Your task to perform on an android device: Go to internet settings Image 0: 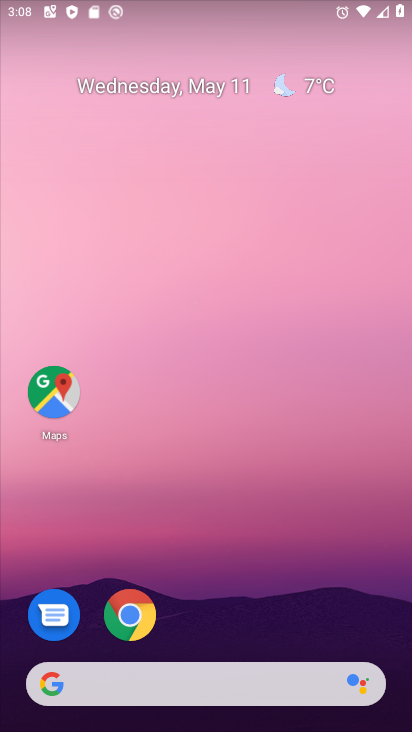
Step 0: drag from (267, 227) to (270, 3)
Your task to perform on an android device: Go to internet settings Image 1: 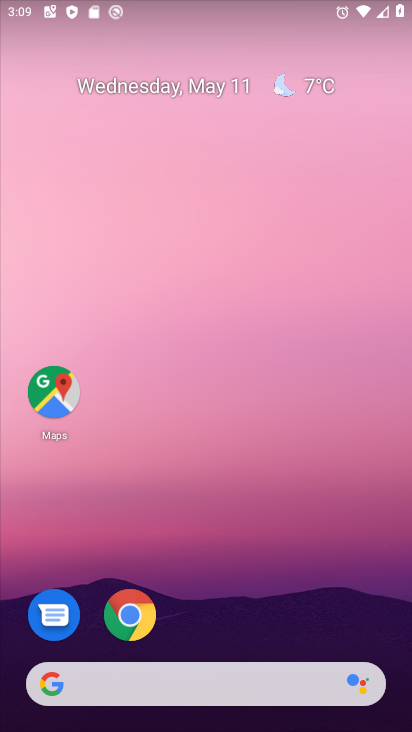
Step 1: drag from (292, 559) to (254, 37)
Your task to perform on an android device: Go to internet settings Image 2: 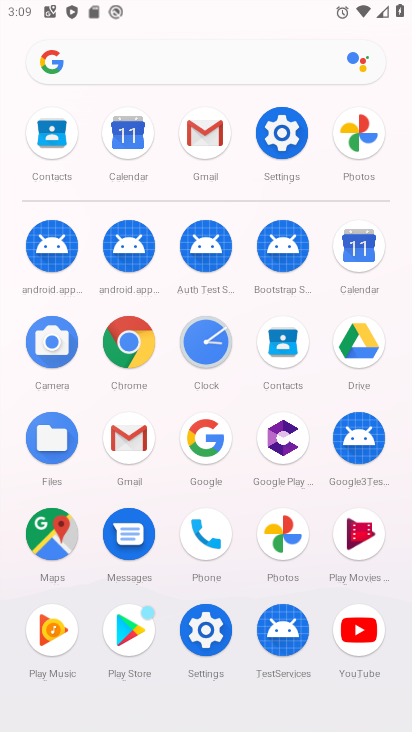
Step 2: click (278, 117)
Your task to perform on an android device: Go to internet settings Image 3: 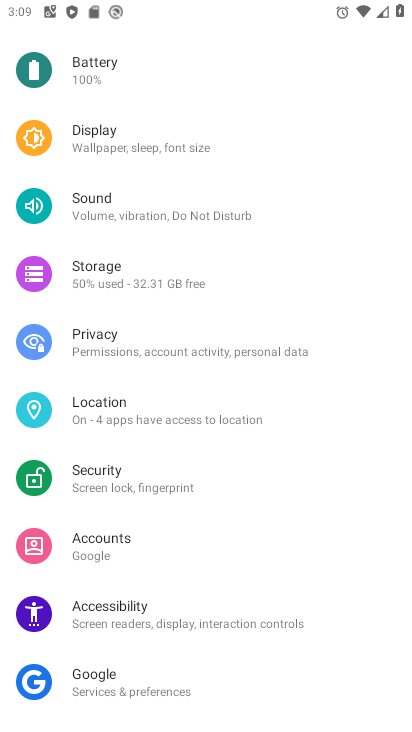
Step 3: drag from (188, 85) to (148, 730)
Your task to perform on an android device: Go to internet settings Image 4: 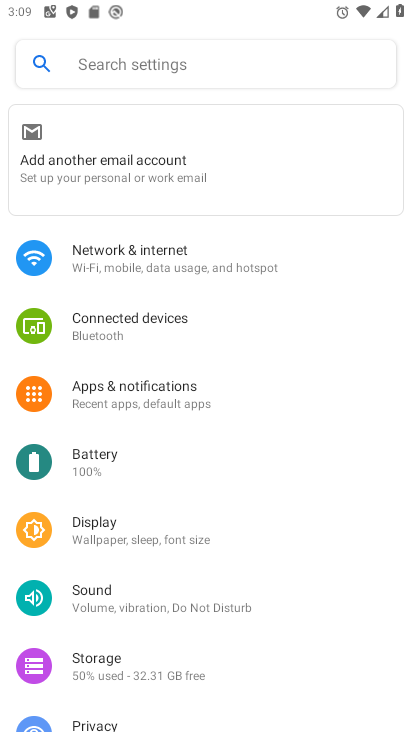
Step 4: click (160, 252)
Your task to perform on an android device: Go to internet settings Image 5: 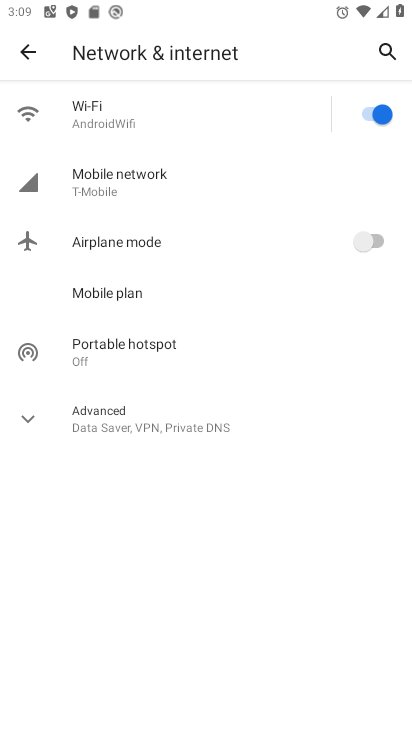
Step 5: task complete